Your task to perform on an android device: uninstall "Calculator" Image 0: 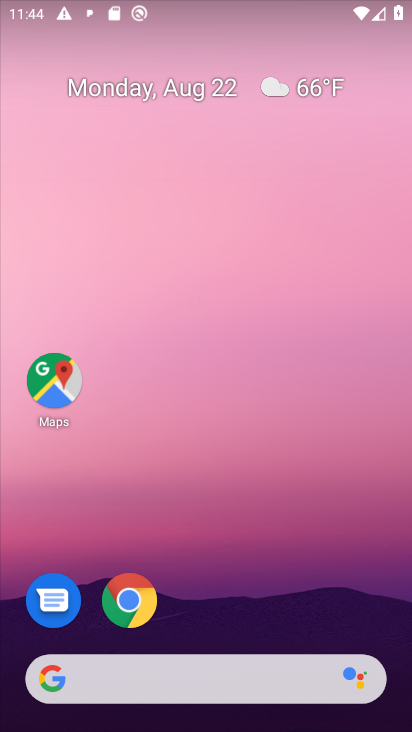
Step 0: drag from (213, 572) to (244, 135)
Your task to perform on an android device: uninstall "Calculator" Image 1: 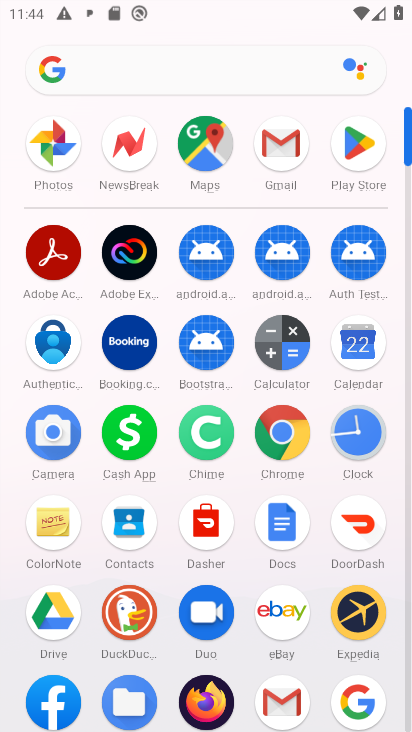
Step 1: click (337, 134)
Your task to perform on an android device: uninstall "Calculator" Image 2: 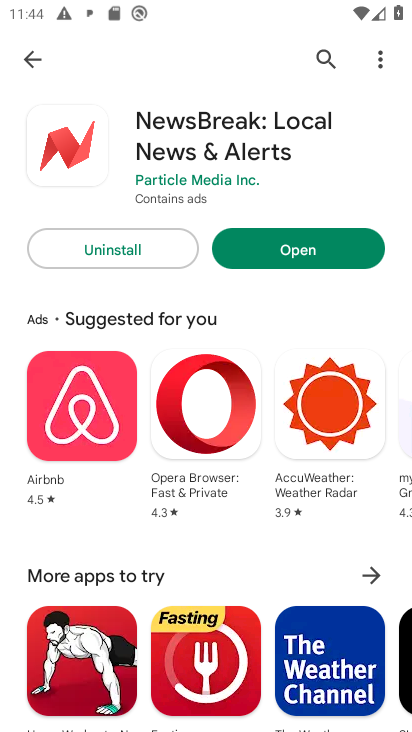
Step 2: click (323, 51)
Your task to perform on an android device: uninstall "Calculator" Image 3: 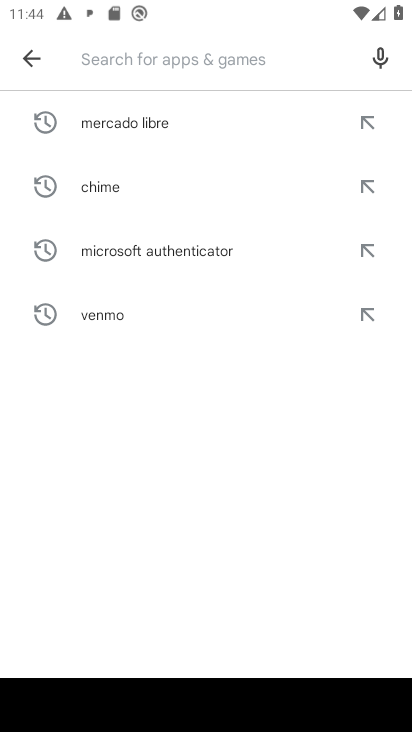
Step 3: type "Calculator"
Your task to perform on an android device: uninstall "Calculator" Image 4: 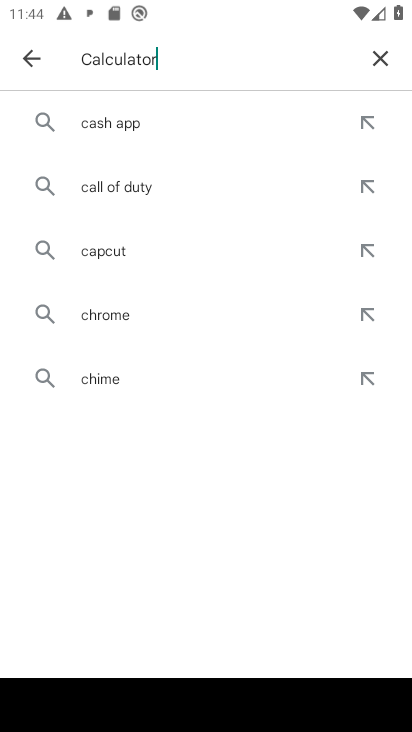
Step 4: type ""
Your task to perform on an android device: uninstall "Calculator" Image 5: 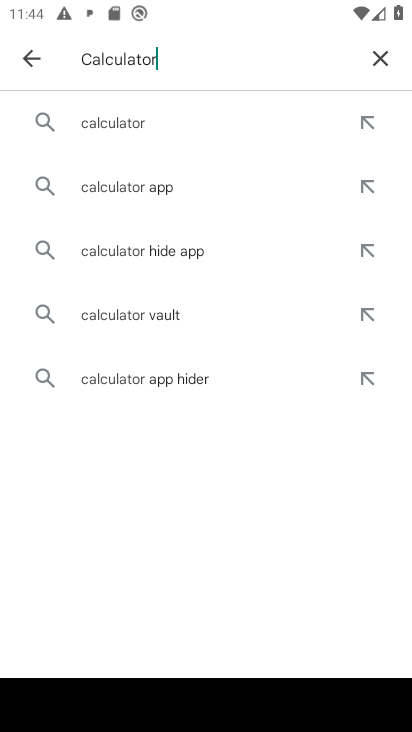
Step 5: click (156, 121)
Your task to perform on an android device: uninstall "Calculator" Image 6: 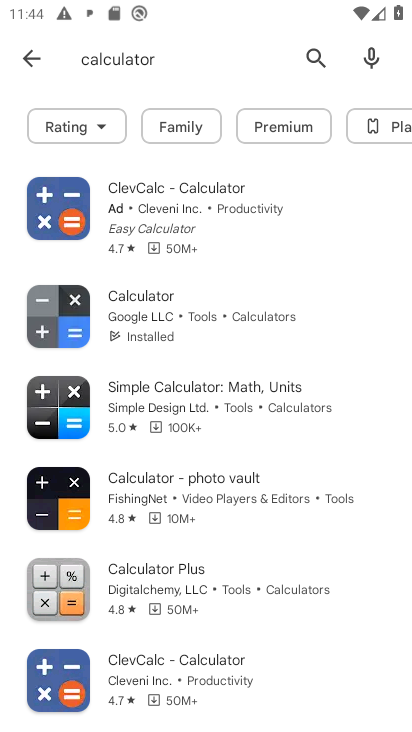
Step 6: click (115, 310)
Your task to perform on an android device: uninstall "Calculator" Image 7: 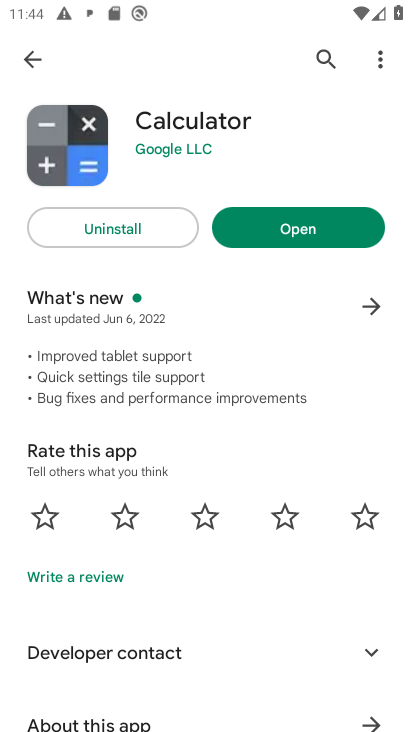
Step 7: click (128, 228)
Your task to perform on an android device: uninstall "Calculator" Image 8: 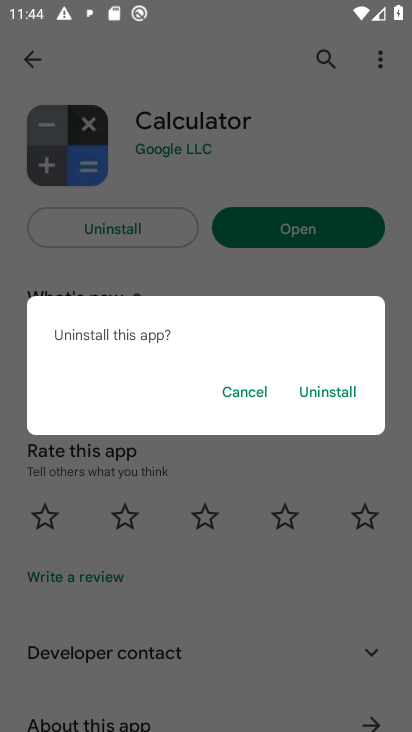
Step 8: click (334, 377)
Your task to perform on an android device: uninstall "Calculator" Image 9: 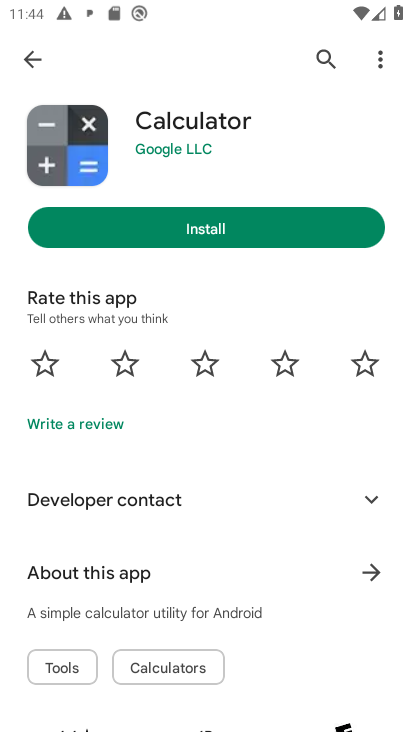
Step 9: task complete